Your task to perform on an android device: open wifi settings Image 0: 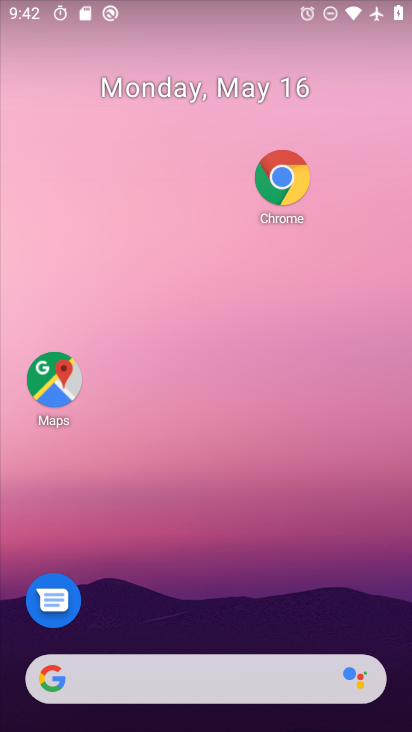
Step 0: press home button
Your task to perform on an android device: open wifi settings Image 1: 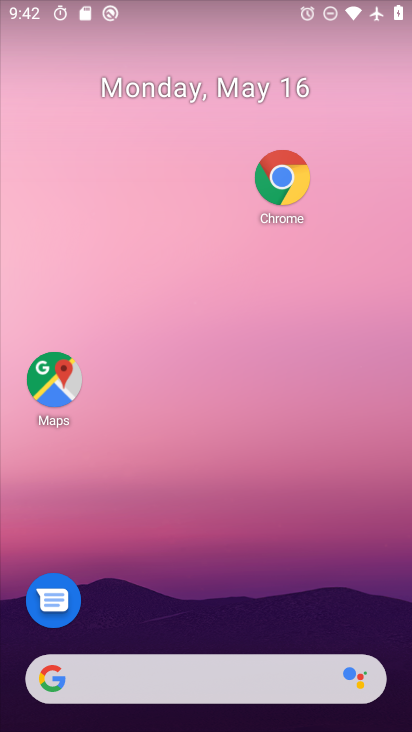
Step 1: drag from (219, 663) to (355, 191)
Your task to perform on an android device: open wifi settings Image 2: 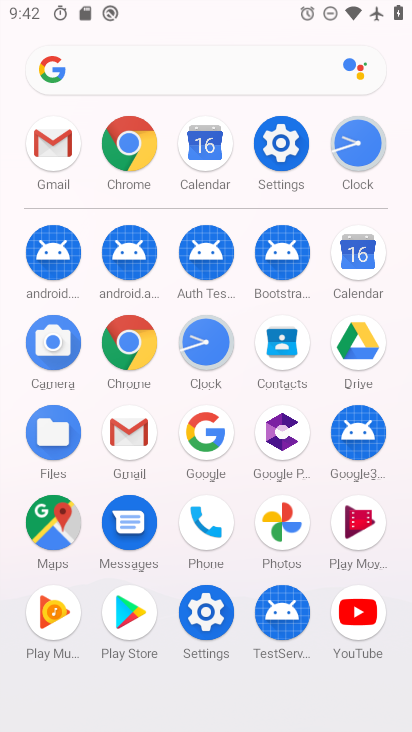
Step 2: click (283, 153)
Your task to perform on an android device: open wifi settings Image 3: 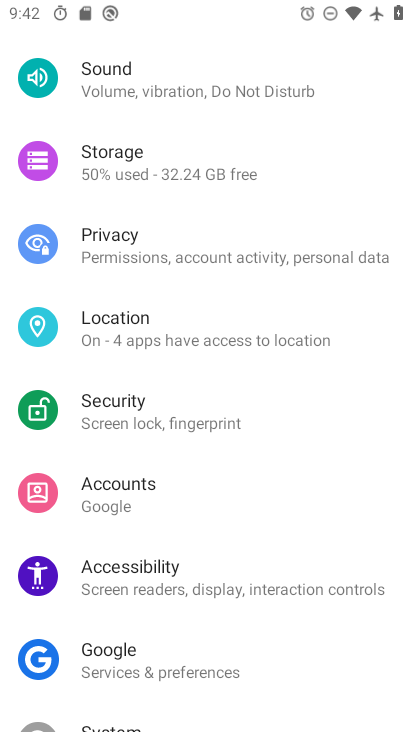
Step 3: drag from (235, 60) to (127, 526)
Your task to perform on an android device: open wifi settings Image 4: 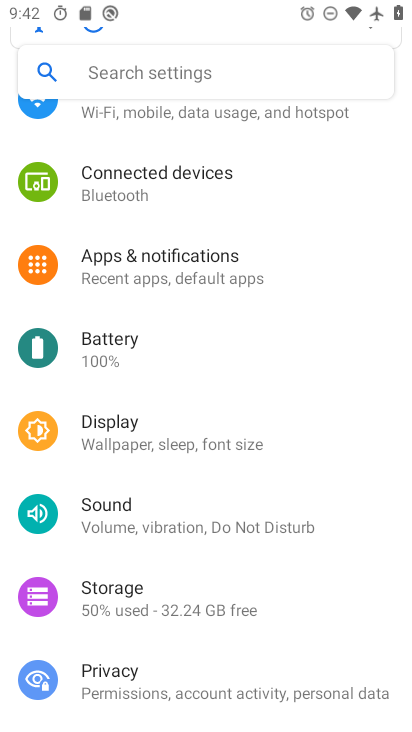
Step 4: drag from (267, 222) to (188, 596)
Your task to perform on an android device: open wifi settings Image 5: 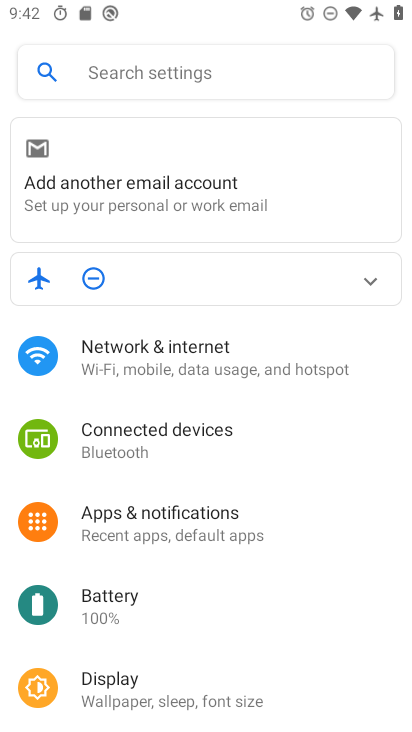
Step 5: click (175, 355)
Your task to perform on an android device: open wifi settings Image 6: 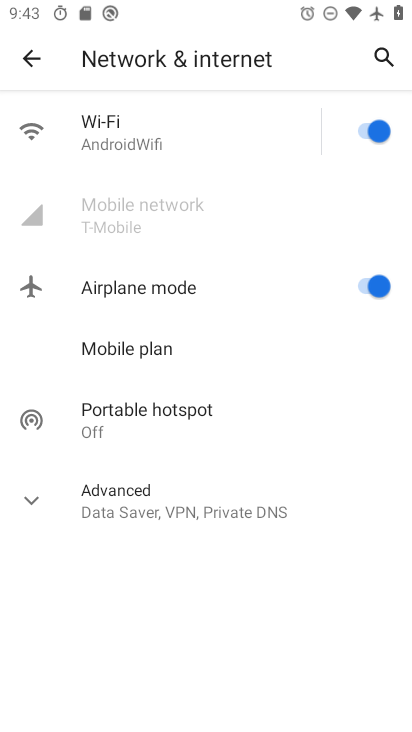
Step 6: click (126, 147)
Your task to perform on an android device: open wifi settings Image 7: 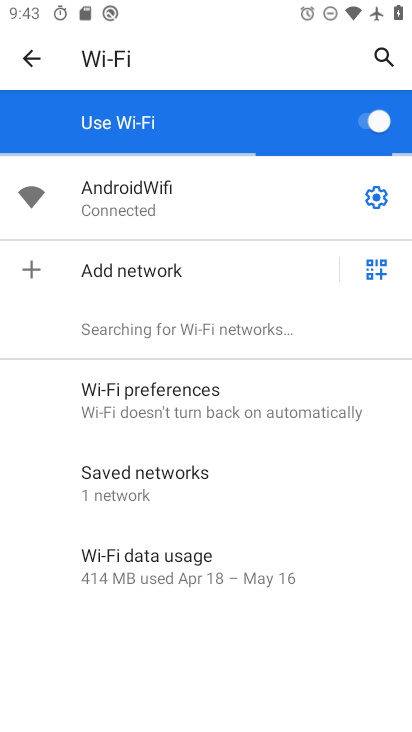
Step 7: task complete